Your task to perform on an android device: create a new album in the google photos Image 0: 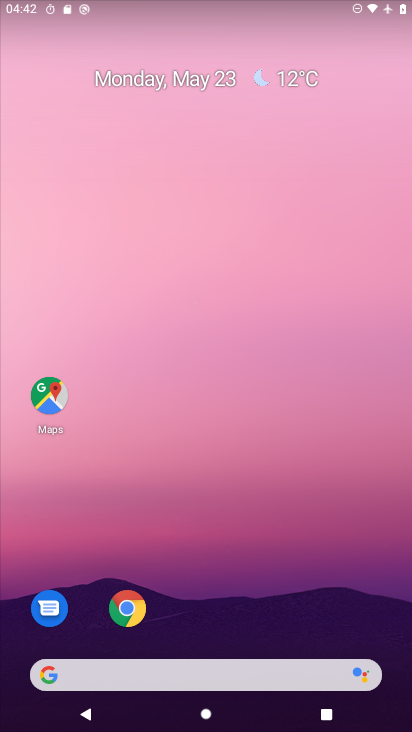
Step 0: drag from (304, 520) to (178, 80)
Your task to perform on an android device: create a new album in the google photos Image 1: 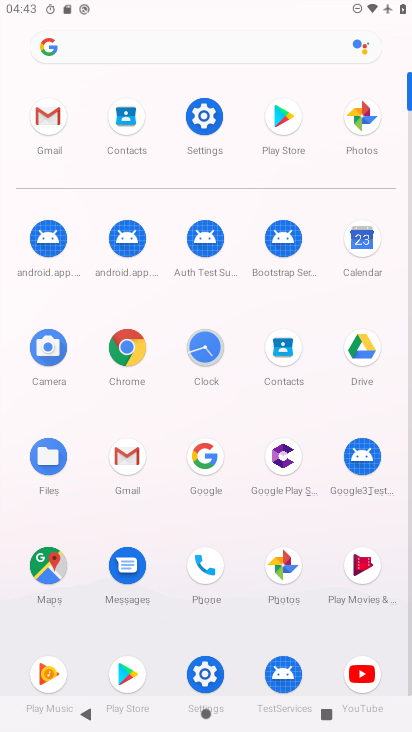
Step 1: click (283, 534)
Your task to perform on an android device: create a new album in the google photos Image 2: 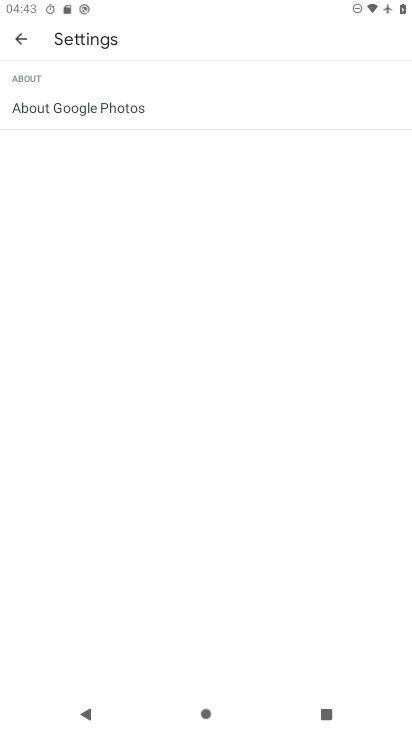
Step 2: click (17, 35)
Your task to perform on an android device: create a new album in the google photos Image 3: 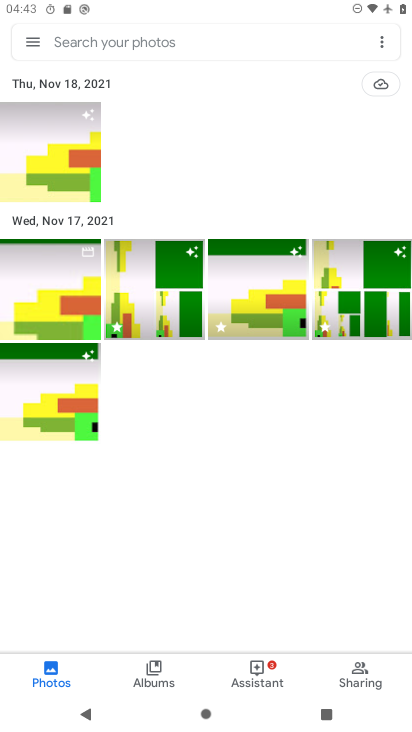
Step 3: click (168, 674)
Your task to perform on an android device: create a new album in the google photos Image 4: 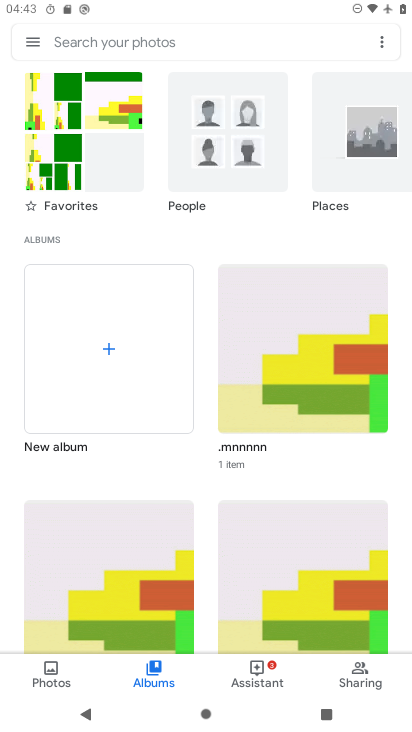
Step 4: click (116, 371)
Your task to perform on an android device: create a new album in the google photos Image 5: 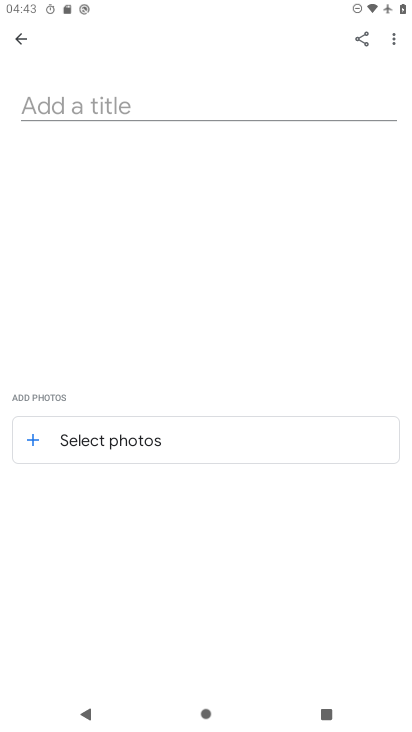
Step 5: click (130, 100)
Your task to perform on an android device: create a new album in the google photos Image 6: 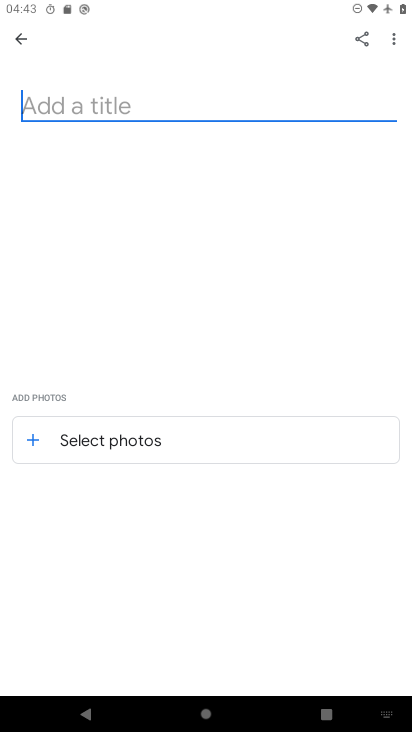
Step 6: type "thgfhfh"
Your task to perform on an android device: create a new album in the google photos Image 7: 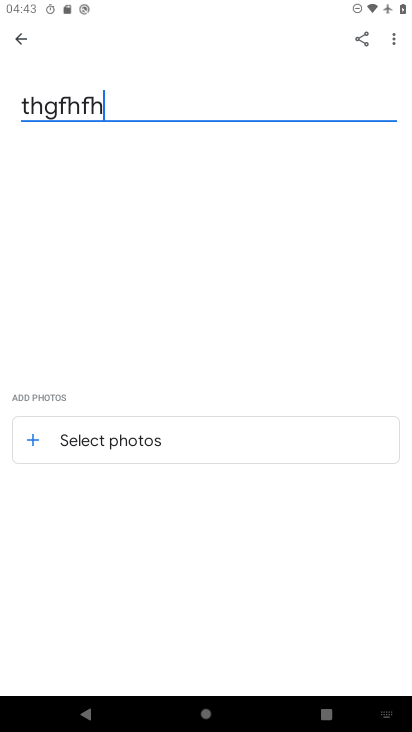
Step 7: type ""
Your task to perform on an android device: create a new album in the google photos Image 8: 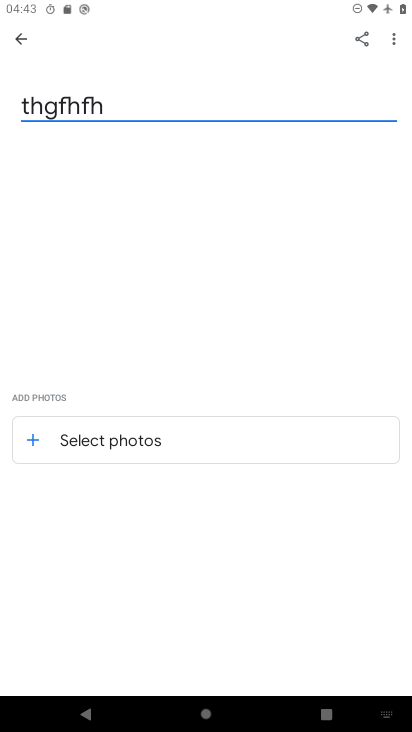
Step 8: click (136, 440)
Your task to perform on an android device: create a new album in the google photos Image 9: 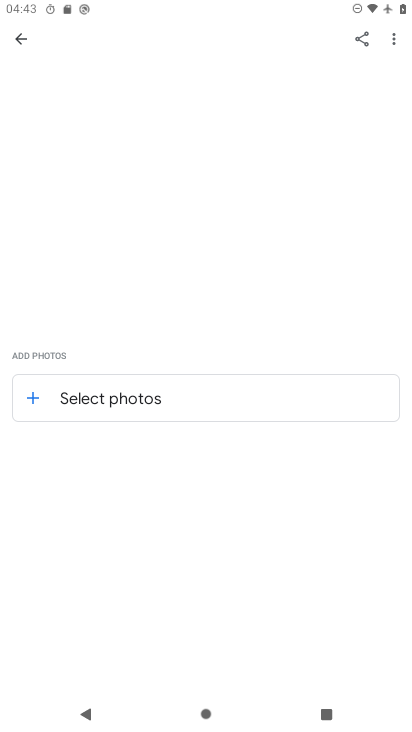
Step 9: click (206, 399)
Your task to perform on an android device: create a new album in the google photos Image 10: 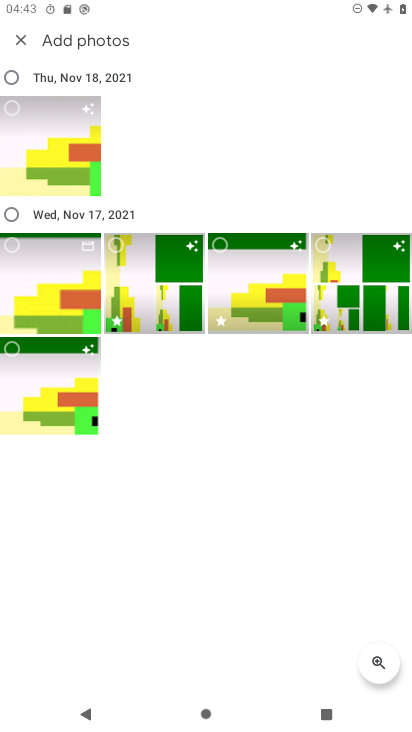
Step 10: click (71, 301)
Your task to perform on an android device: create a new album in the google photos Image 11: 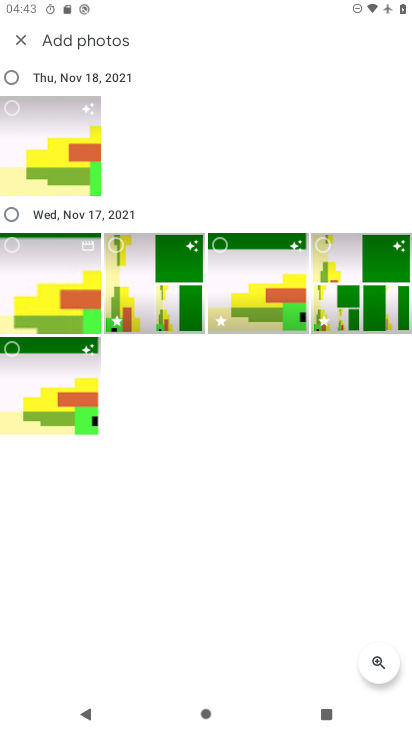
Step 11: click (273, 300)
Your task to perform on an android device: create a new album in the google photos Image 12: 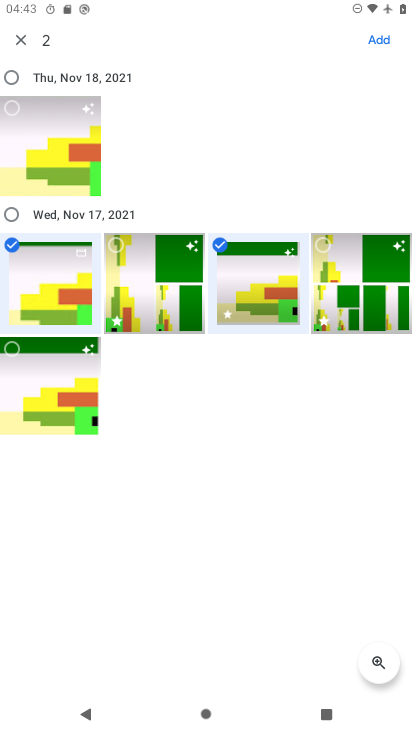
Step 12: click (373, 40)
Your task to perform on an android device: create a new album in the google photos Image 13: 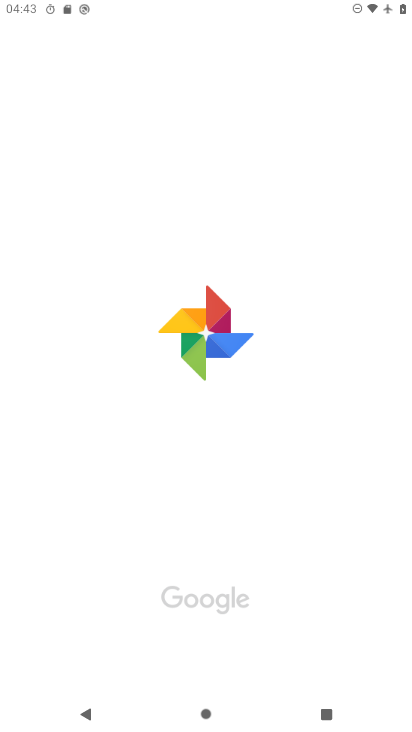
Step 13: task complete